Your task to perform on an android device: turn on wifi Image 0: 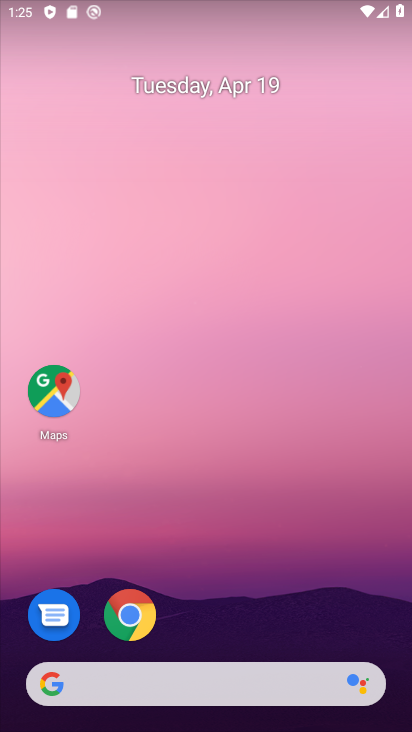
Step 0: click (365, 153)
Your task to perform on an android device: turn on wifi Image 1: 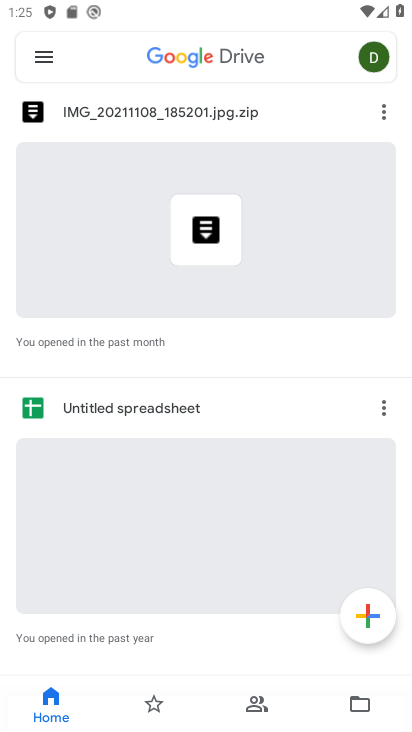
Step 1: press back button
Your task to perform on an android device: turn on wifi Image 2: 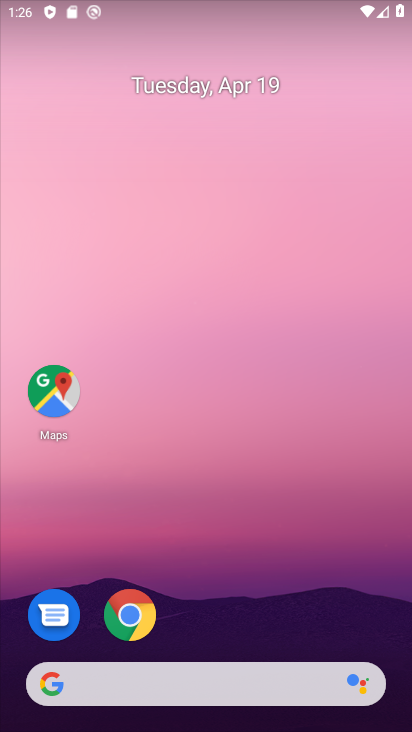
Step 2: drag from (178, 668) to (377, 126)
Your task to perform on an android device: turn on wifi Image 3: 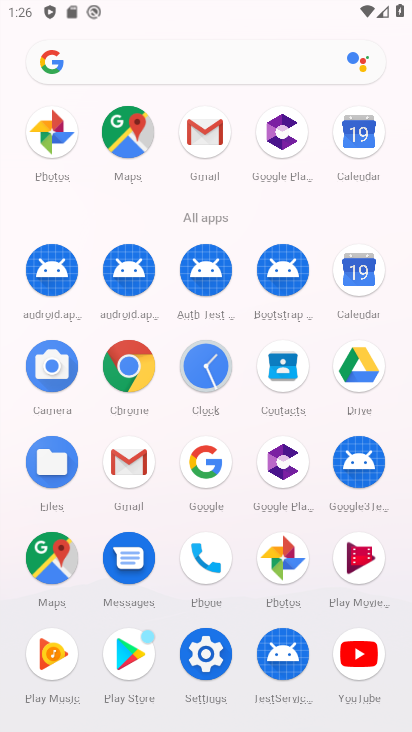
Step 3: drag from (158, 604) to (302, 260)
Your task to perform on an android device: turn on wifi Image 4: 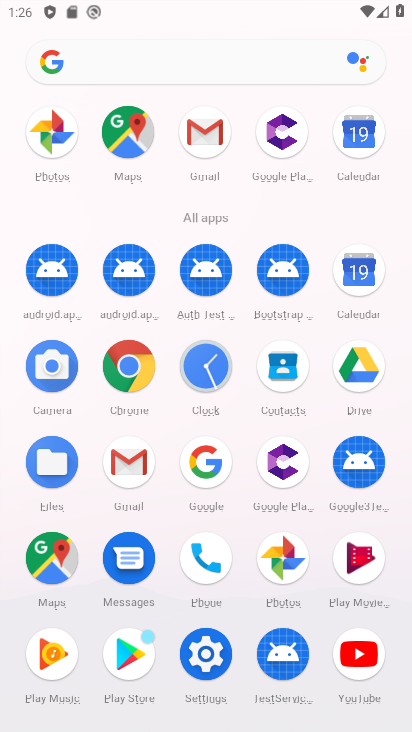
Step 4: click (206, 650)
Your task to perform on an android device: turn on wifi Image 5: 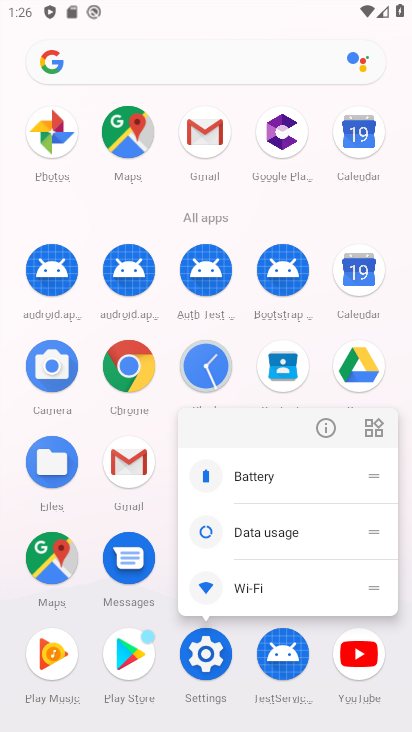
Step 5: click (207, 652)
Your task to perform on an android device: turn on wifi Image 6: 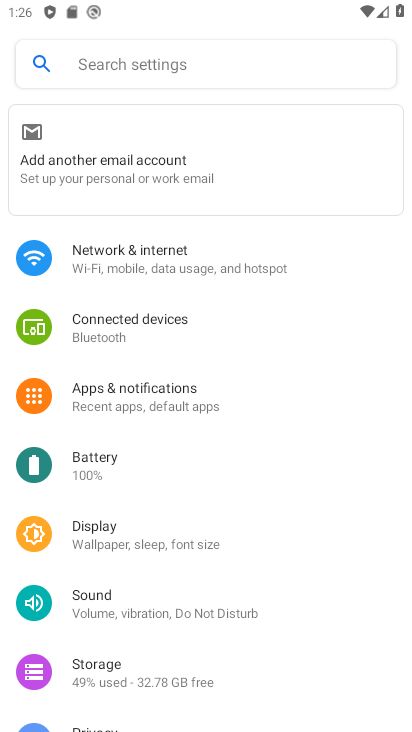
Step 6: click (181, 265)
Your task to perform on an android device: turn on wifi Image 7: 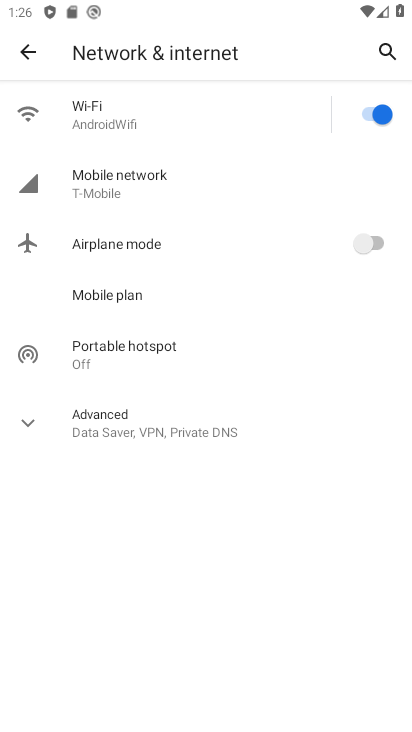
Step 7: click (195, 128)
Your task to perform on an android device: turn on wifi Image 8: 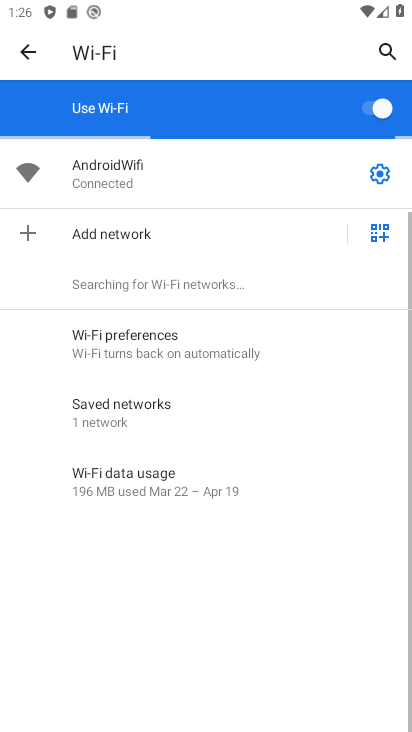
Step 8: task complete